Your task to perform on an android device: Open accessibility settings Image 0: 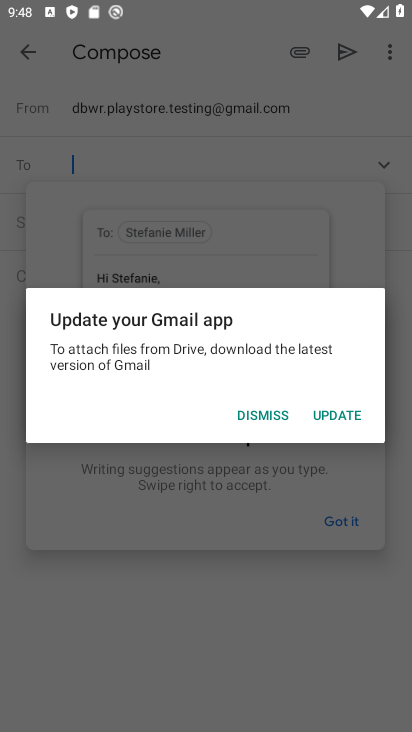
Step 0: press home button
Your task to perform on an android device: Open accessibility settings Image 1: 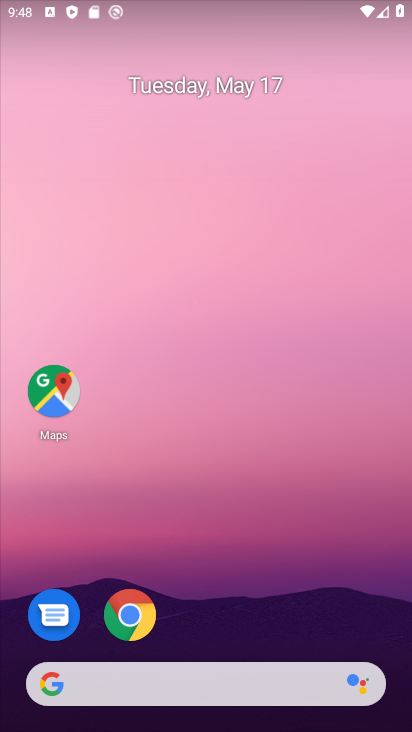
Step 1: drag from (386, 622) to (369, 8)
Your task to perform on an android device: Open accessibility settings Image 2: 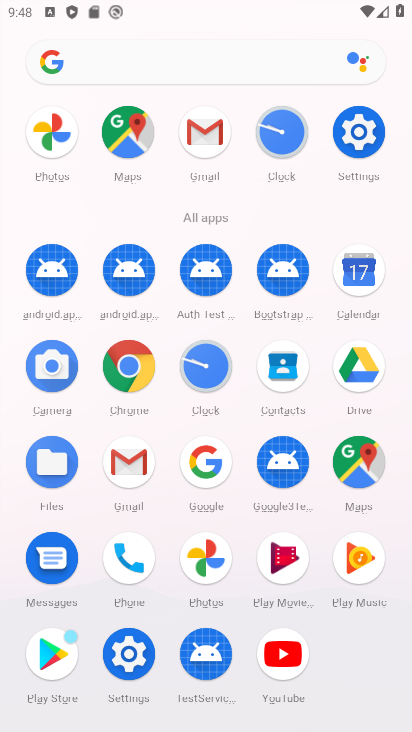
Step 2: click (134, 655)
Your task to perform on an android device: Open accessibility settings Image 3: 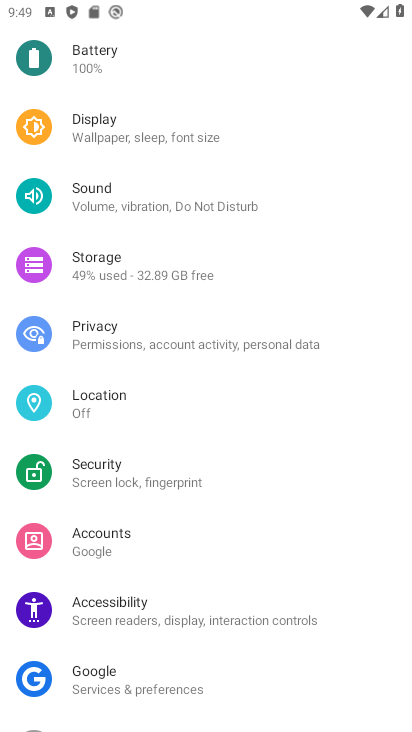
Step 3: click (105, 618)
Your task to perform on an android device: Open accessibility settings Image 4: 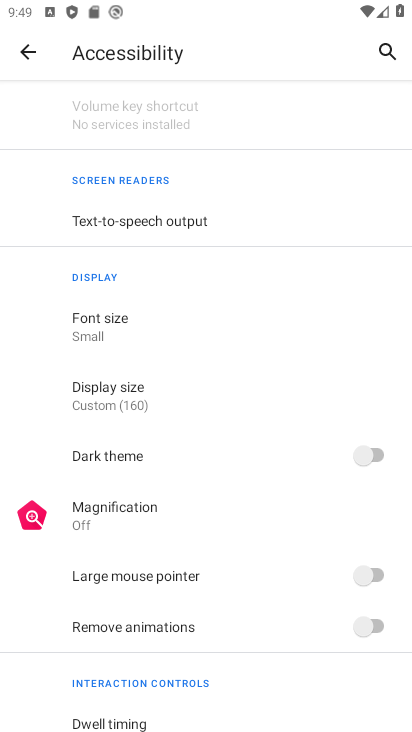
Step 4: task complete